Your task to perform on an android device: toggle translation in the chrome app Image 0: 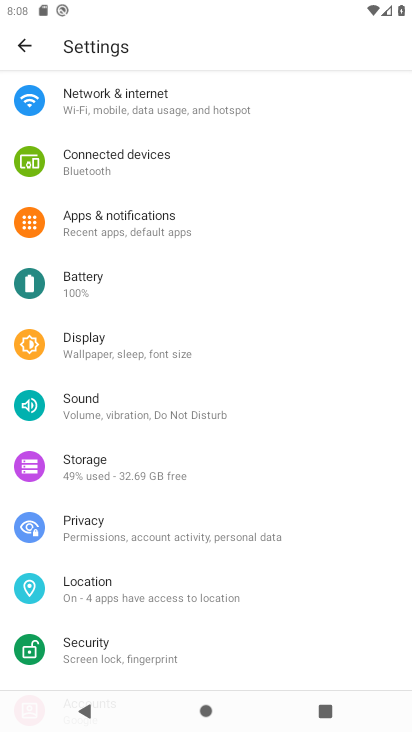
Step 0: press home button
Your task to perform on an android device: toggle translation in the chrome app Image 1: 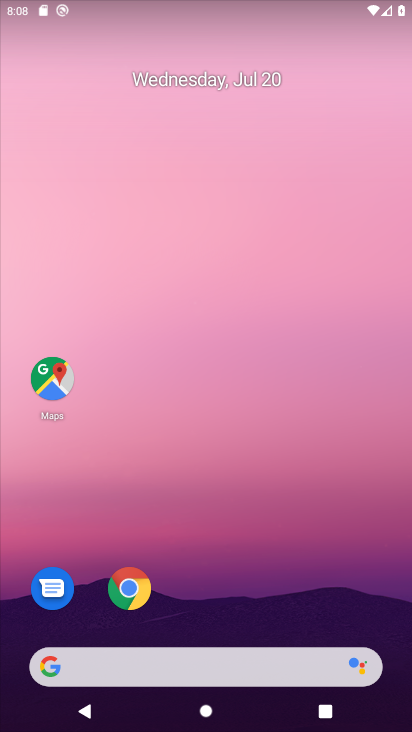
Step 1: click (126, 584)
Your task to perform on an android device: toggle translation in the chrome app Image 2: 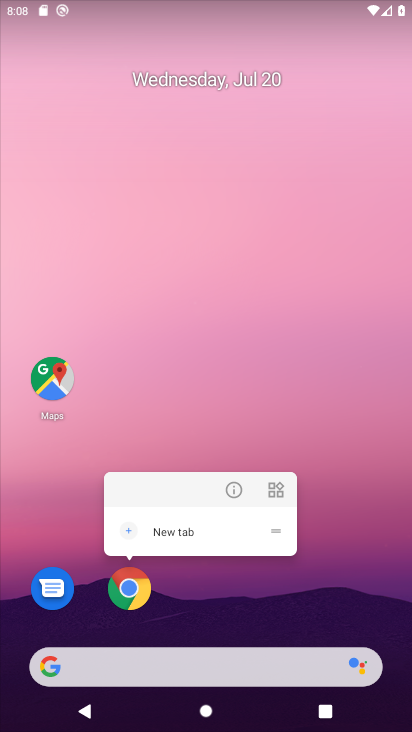
Step 2: click (125, 580)
Your task to perform on an android device: toggle translation in the chrome app Image 3: 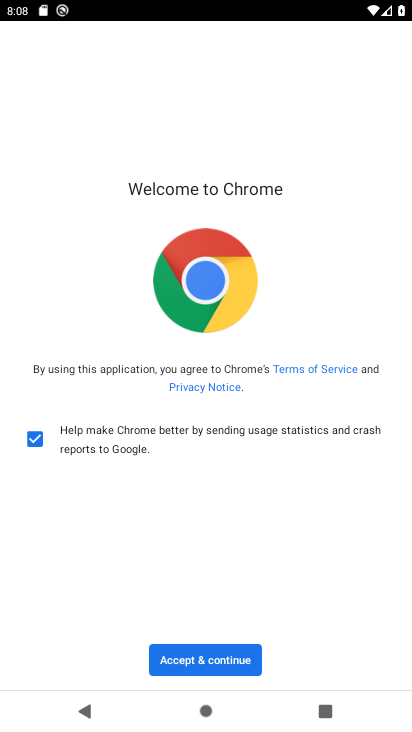
Step 3: click (208, 655)
Your task to perform on an android device: toggle translation in the chrome app Image 4: 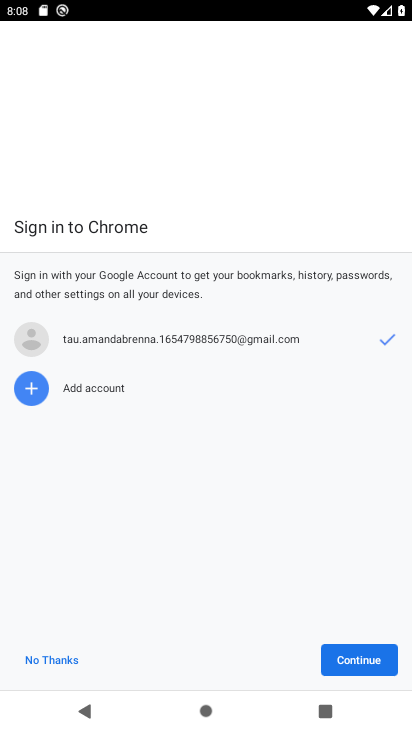
Step 4: click (375, 651)
Your task to perform on an android device: toggle translation in the chrome app Image 5: 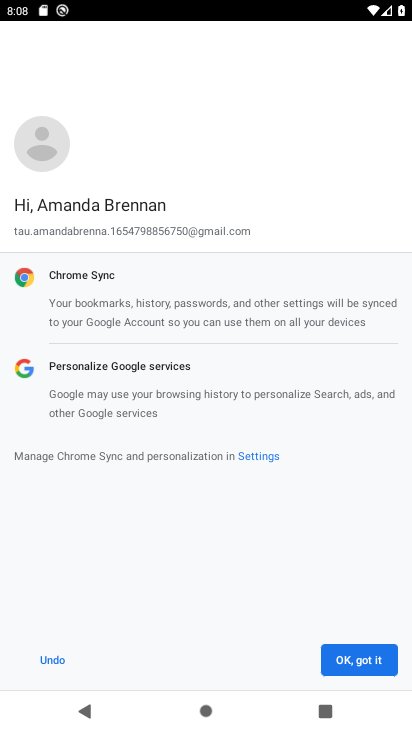
Step 5: click (375, 651)
Your task to perform on an android device: toggle translation in the chrome app Image 6: 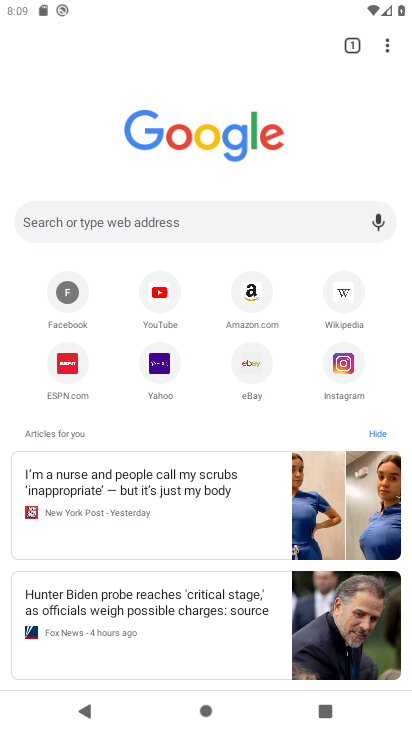
Step 6: click (385, 44)
Your task to perform on an android device: toggle translation in the chrome app Image 7: 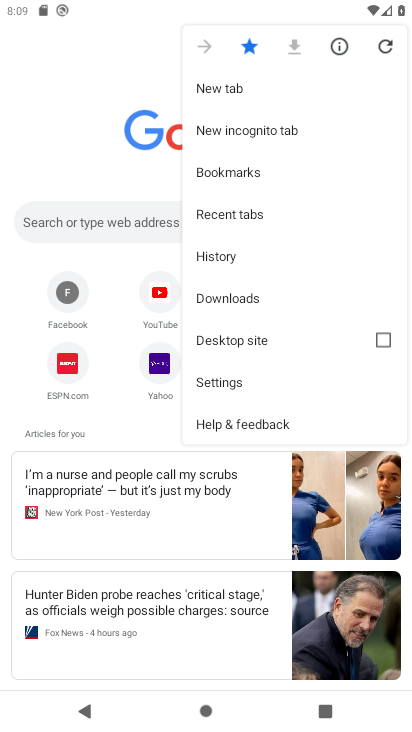
Step 7: click (248, 383)
Your task to perform on an android device: toggle translation in the chrome app Image 8: 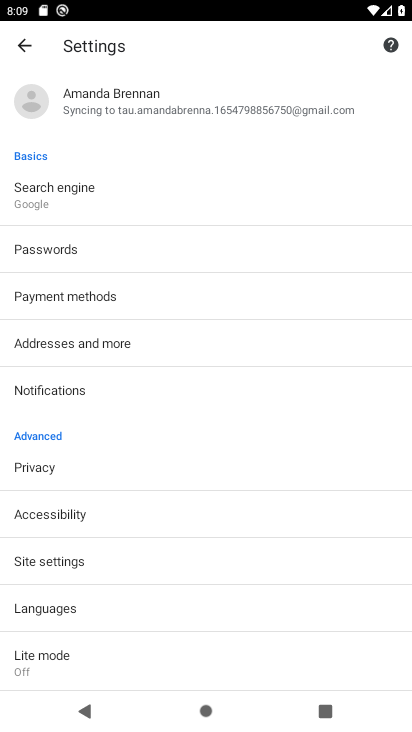
Step 8: click (93, 605)
Your task to perform on an android device: toggle translation in the chrome app Image 9: 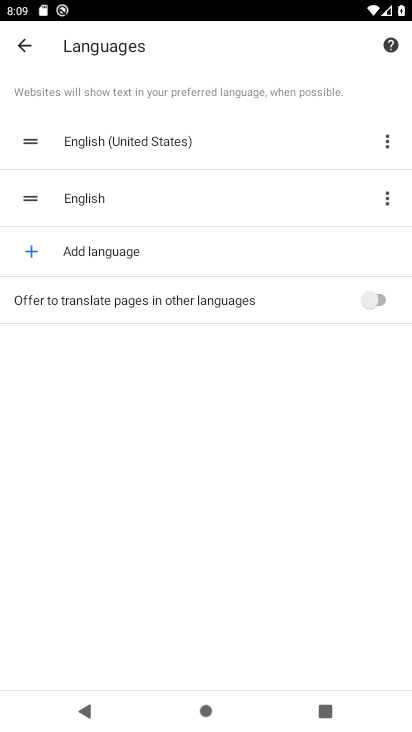
Step 9: task complete